Your task to perform on an android device: Open Google Maps and go to "Timeline" Image 0: 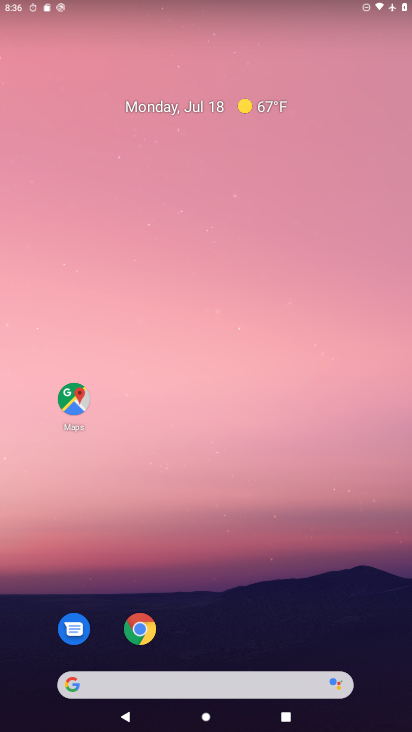
Step 0: click (77, 399)
Your task to perform on an android device: Open Google Maps and go to "Timeline" Image 1: 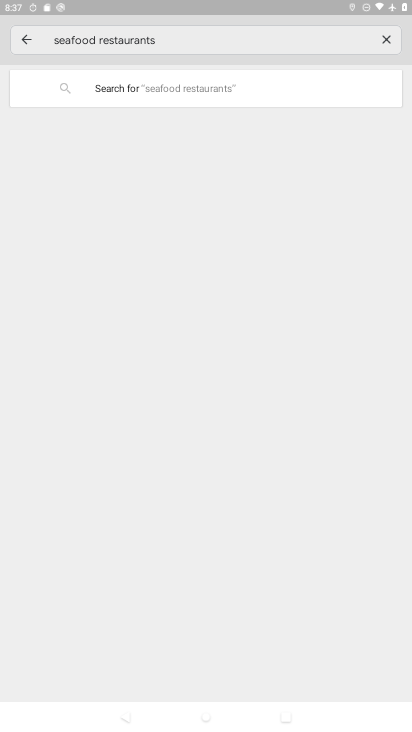
Step 1: click (38, 43)
Your task to perform on an android device: Open Google Maps and go to "Timeline" Image 2: 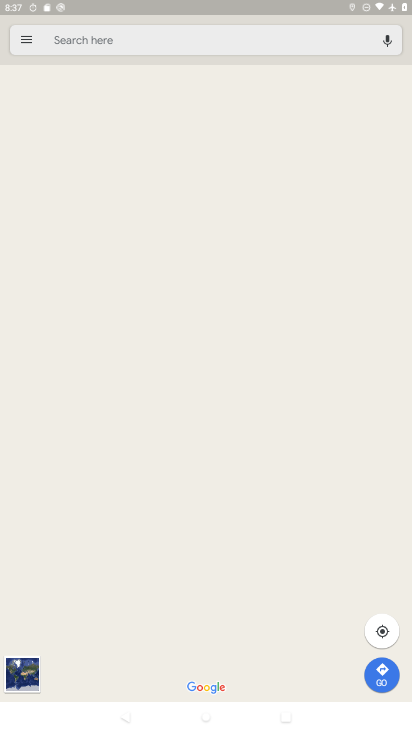
Step 2: click (38, 43)
Your task to perform on an android device: Open Google Maps and go to "Timeline" Image 3: 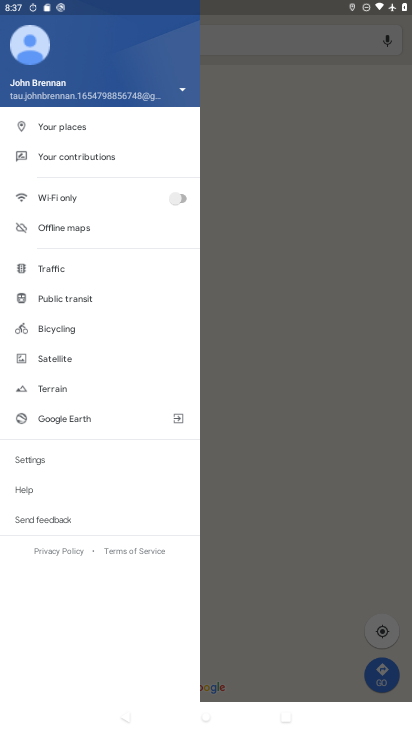
Step 3: task complete